Your task to perform on an android device: see creations saved in the google photos Image 0: 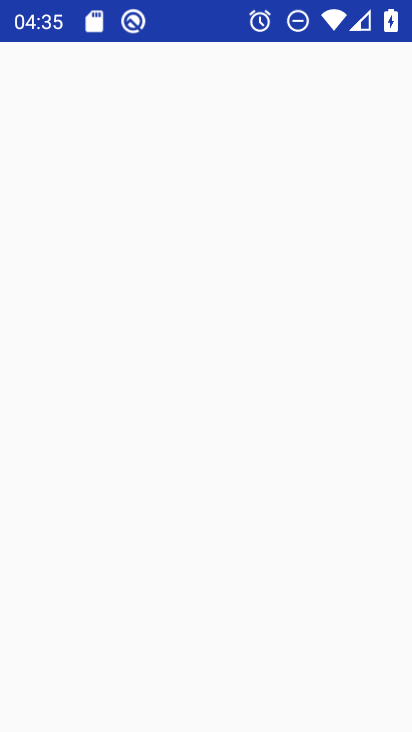
Step 0: click (252, 529)
Your task to perform on an android device: see creations saved in the google photos Image 1: 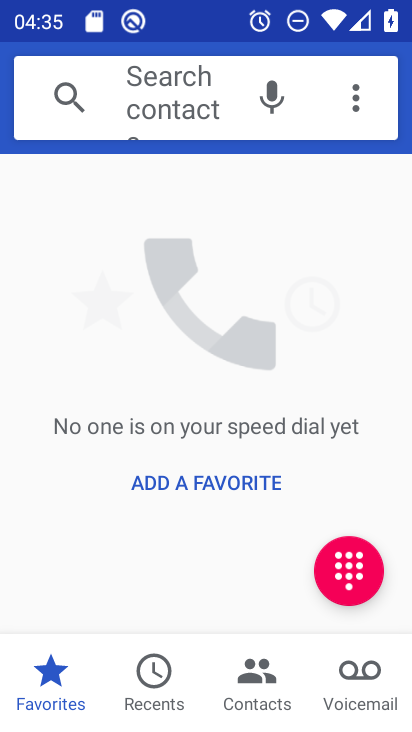
Step 1: press home button
Your task to perform on an android device: see creations saved in the google photos Image 2: 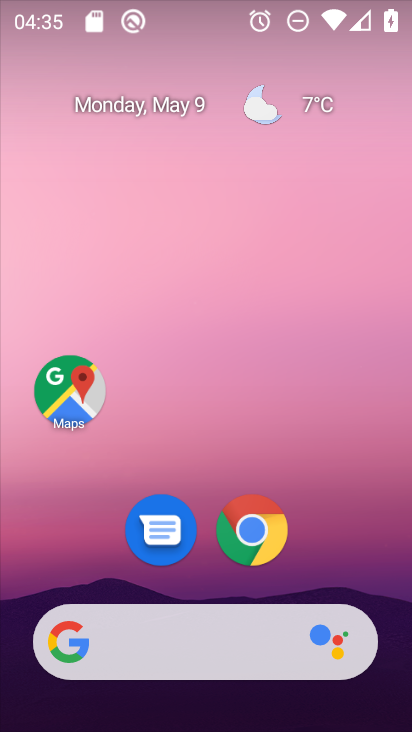
Step 2: drag from (207, 585) to (209, 118)
Your task to perform on an android device: see creations saved in the google photos Image 3: 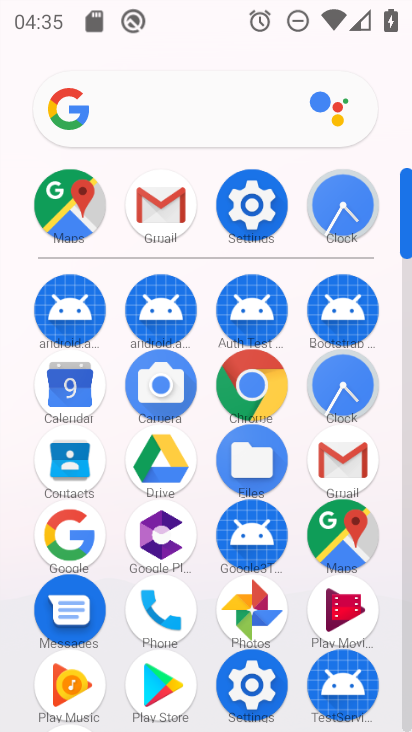
Step 3: click (251, 604)
Your task to perform on an android device: see creations saved in the google photos Image 4: 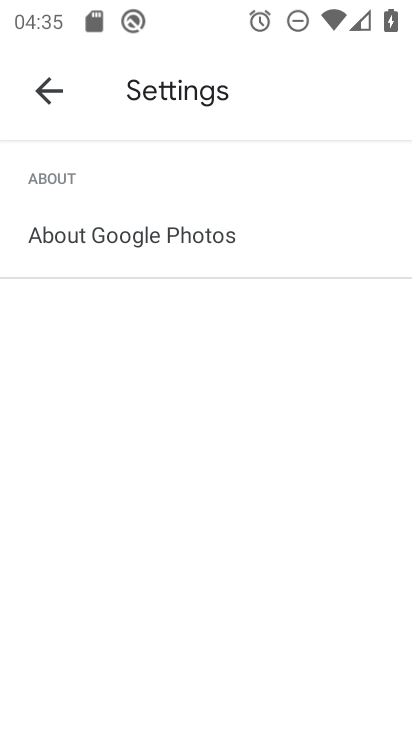
Step 4: click (45, 88)
Your task to perform on an android device: see creations saved in the google photos Image 5: 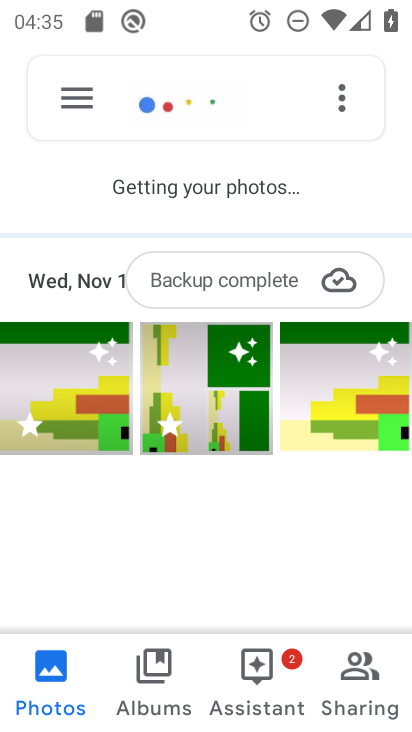
Step 5: click (182, 96)
Your task to perform on an android device: see creations saved in the google photos Image 6: 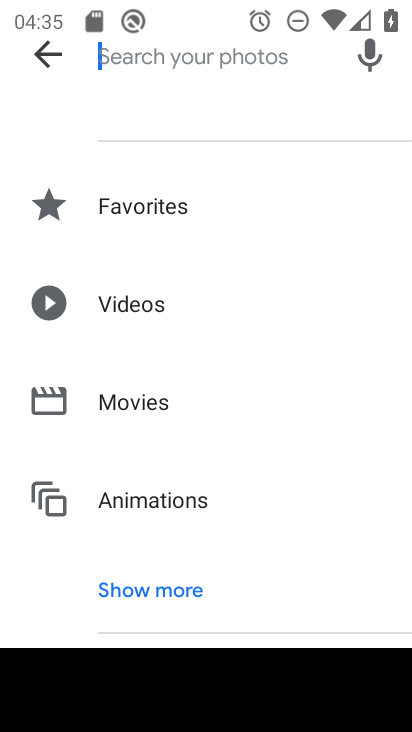
Step 6: click (149, 589)
Your task to perform on an android device: see creations saved in the google photos Image 7: 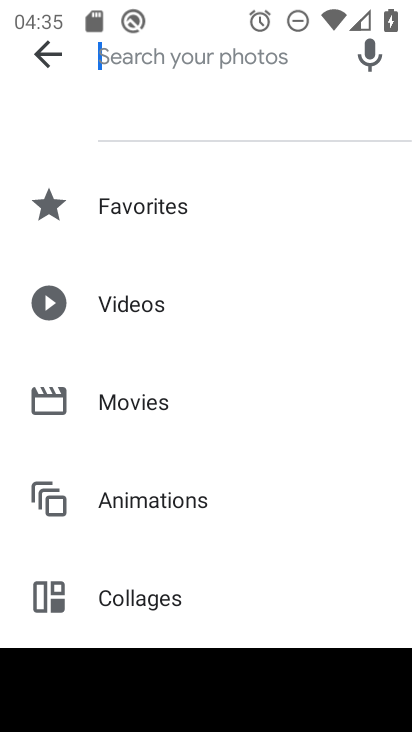
Step 7: drag from (178, 574) to (169, 529)
Your task to perform on an android device: see creations saved in the google photos Image 8: 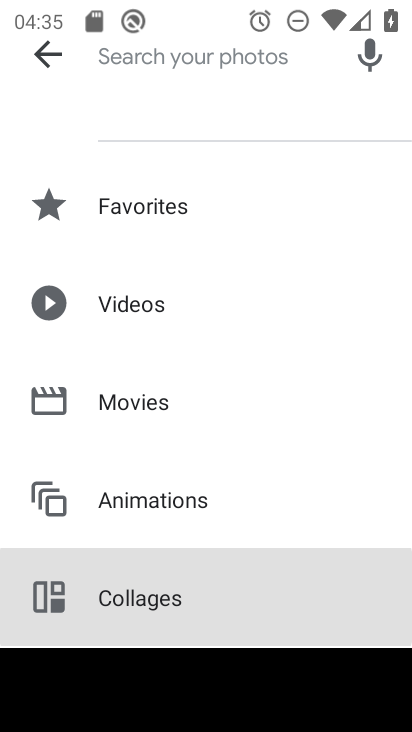
Step 8: drag from (168, 466) to (185, 225)
Your task to perform on an android device: see creations saved in the google photos Image 9: 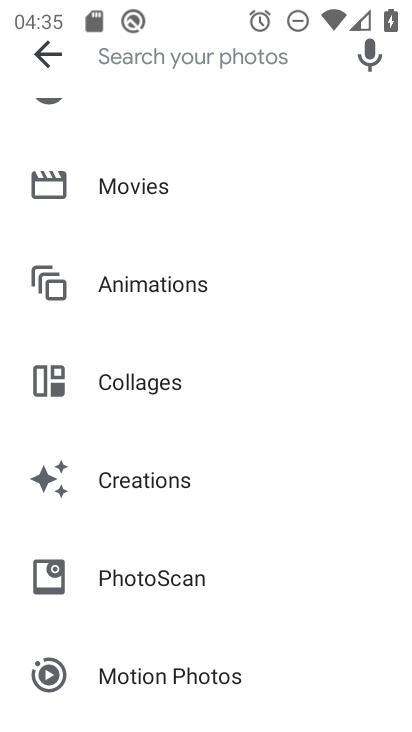
Step 9: click (205, 477)
Your task to perform on an android device: see creations saved in the google photos Image 10: 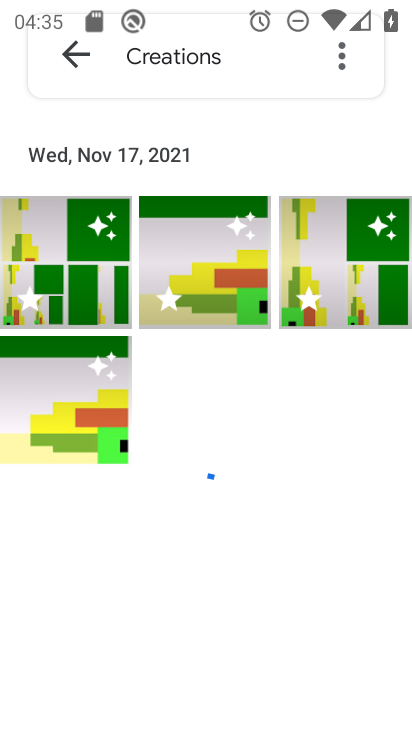
Step 10: task complete